Your task to perform on an android device: add a contact Image 0: 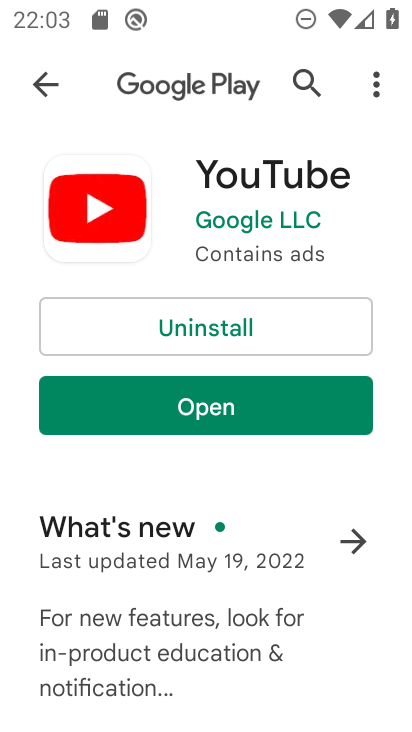
Step 0: press home button
Your task to perform on an android device: add a contact Image 1: 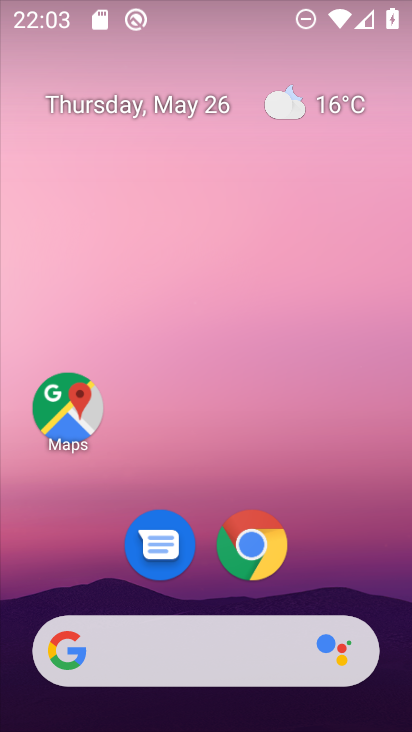
Step 1: drag from (331, 567) to (303, 70)
Your task to perform on an android device: add a contact Image 2: 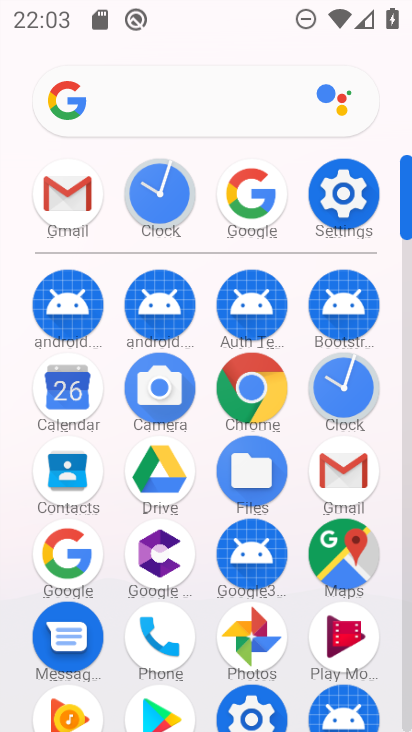
Step 2: click (78, 464)
Your task to perform on an android device: add a contact Image 3: 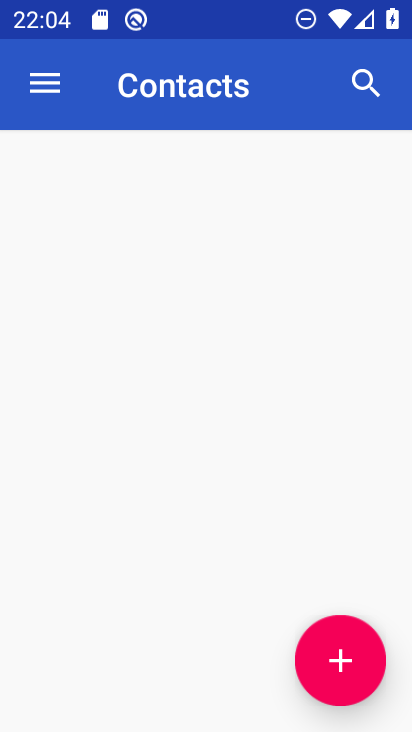
Step 3: click (329, 660)
Your task to perform on an android device: add a contact Image 4: 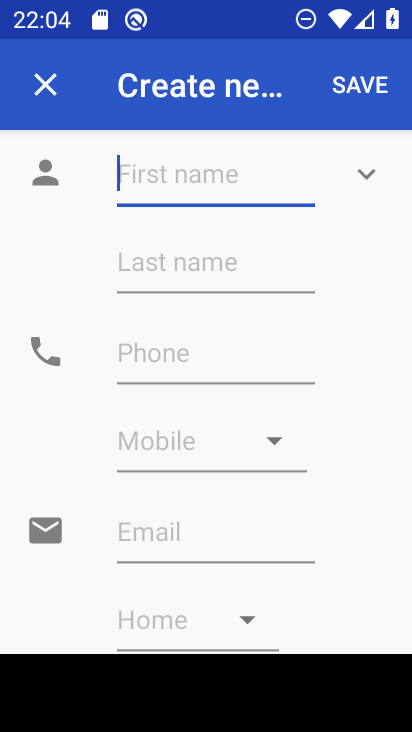
Step 4: type "gjtj"
Your task to perform on an android device: add a contact Image 5: 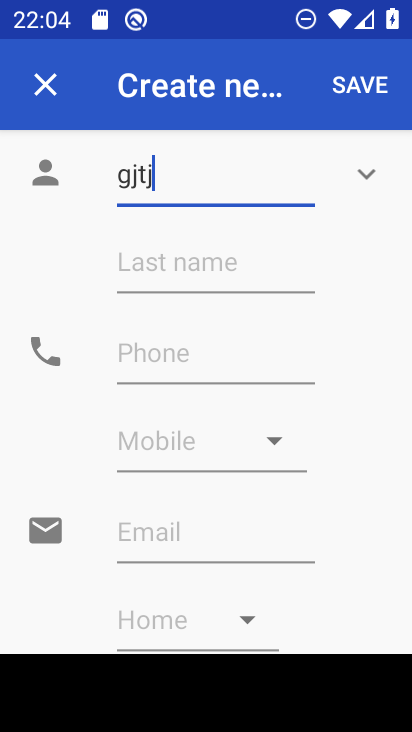
Step 5: click (364, 95)
Your task to perform on an android device: add a contact Image 6: 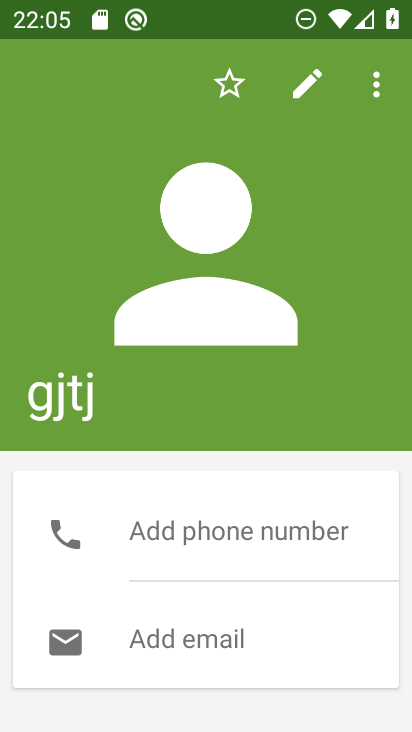
Step 6: task complete